Your task to perform on an android device: Open calendar and show me the fourth week of next month Image 0: 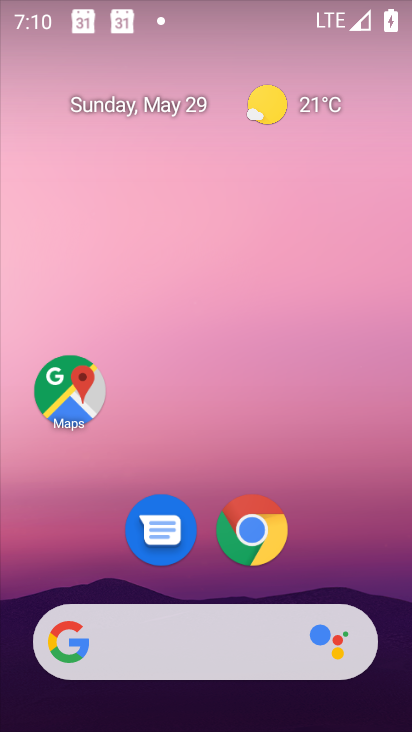
Step 0: drag from (219, 686) to (255, 229)
Your task to perform on an android device: Open calendar and show me the fourth week of next month Image 1: 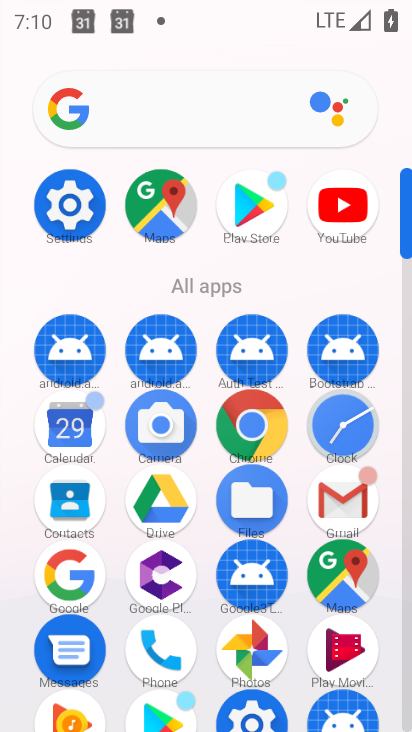
Step 1: click (94, 446)
Your task to perform on an android device: Open calendar and show me the fourth week of next month Image 2: 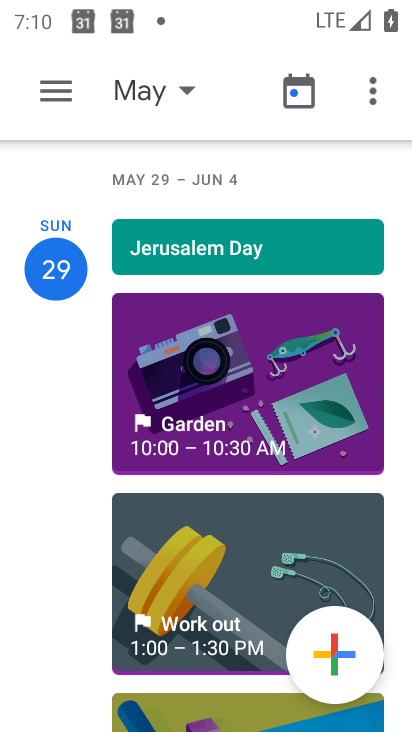
Step 2: click (45, 87)
Your task to perform on an android device: Open calendar and show me the fourth week of next month Image 3: 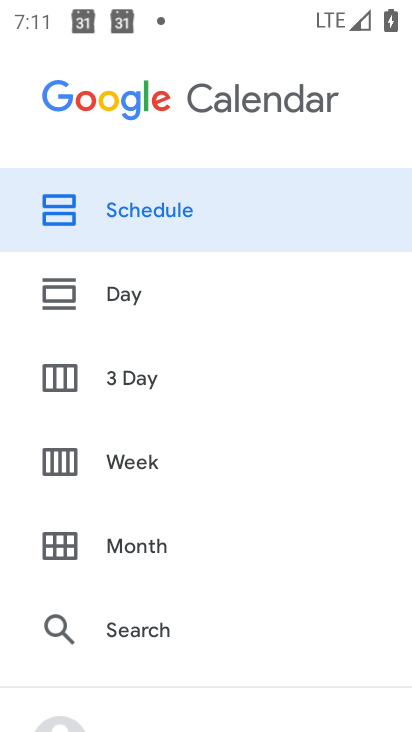
Step 3: drag from (167, 552) to (240, 335)
Your task to perform on an android device: Open calendar and show me the fourth week of next month Image 4: 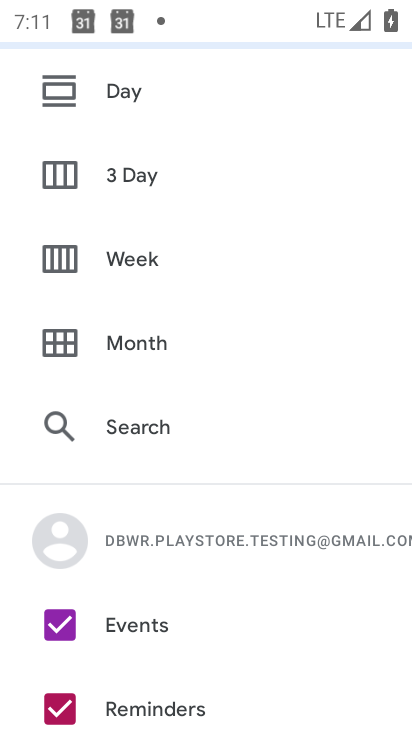
Step 4: click (181, 350)
Your task to perform on an android device: Open calendar and show me the fourth week of next month Image 5: 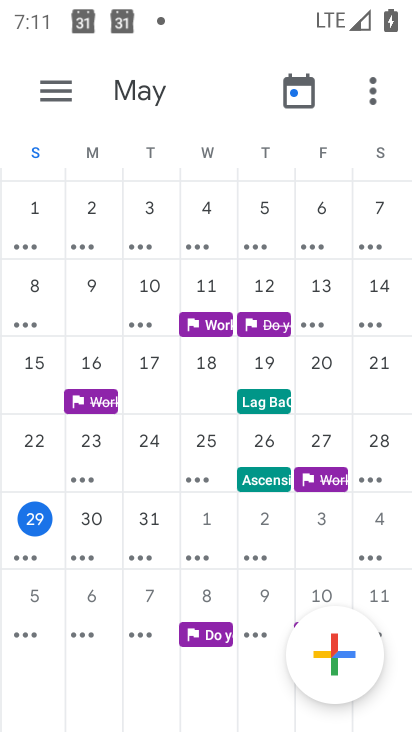
Step 5: drag from (341, 361) to (5, 395)
Your task to perform on an android device: Open calendar and show me the fourth week of next month Image 6: 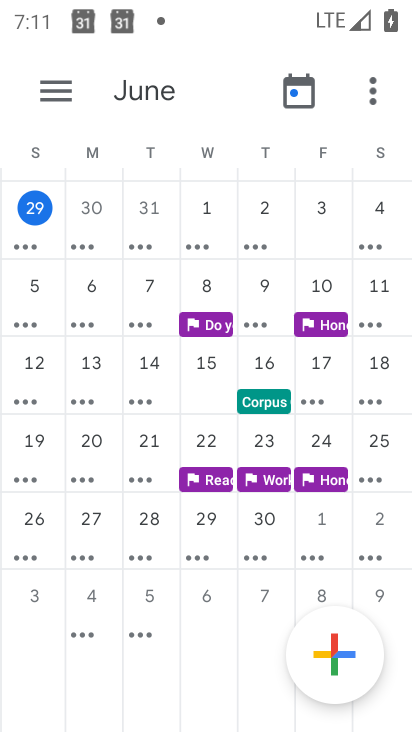
Step 6: click (88, 460)
Your task to perform on an android device: Open calendar and show me the fourth week of next month Image 7: 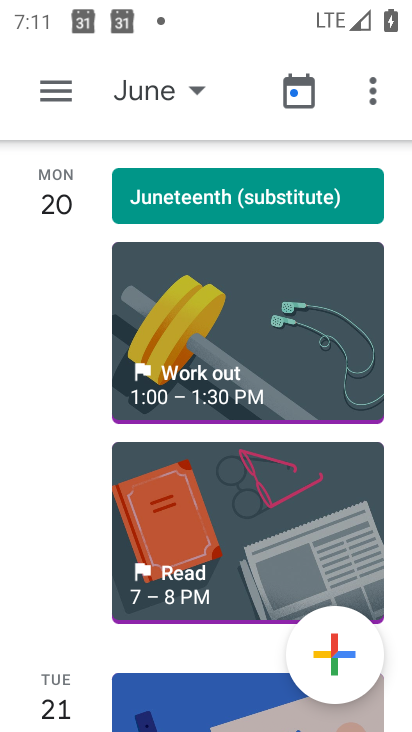
Step 7: task complete